Your task to perform on an android device: check storage Image 0: 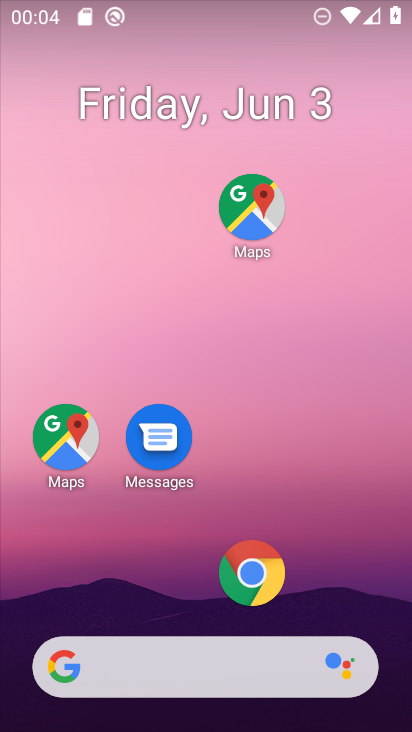
Step 0: drag from (304, 605) to (300, 35)
Your task to perform on an android device: check storage Image 1: 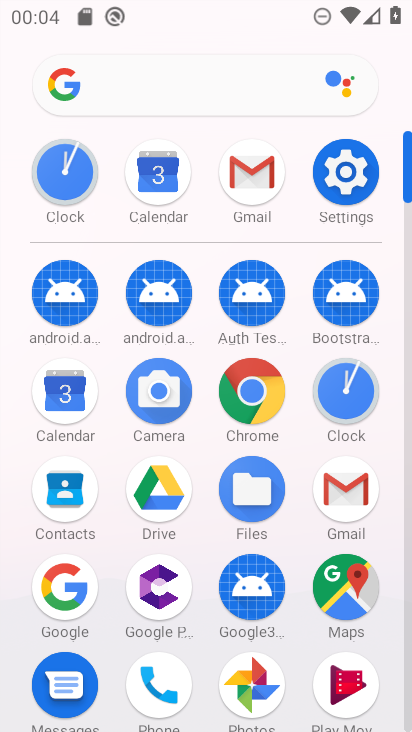
Step 1: click (337, 177)
Your task to perform on an android device: check storage Image 2: 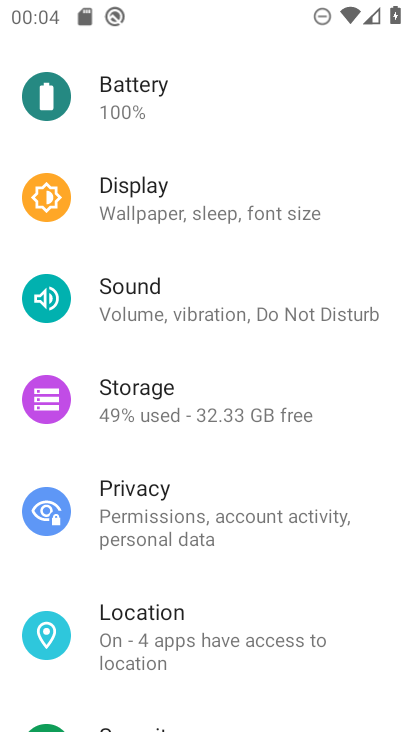
Step 2: click (172, 385)
Your task to perform on an android device: check storage Image 3: 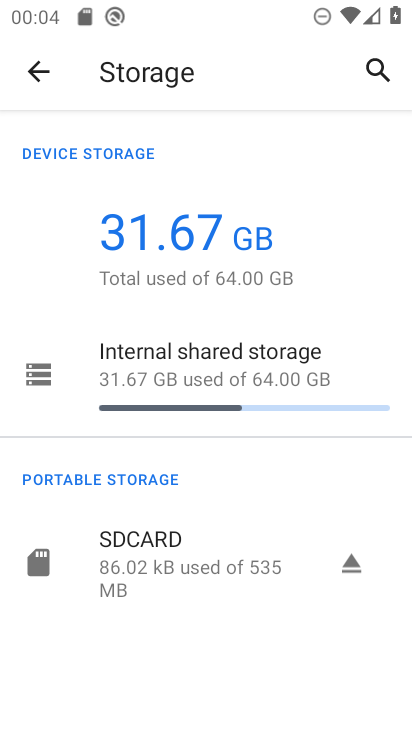
Step 3: task complete